Your task to perform on an android device: turn on translation in the chrome app Image 0: 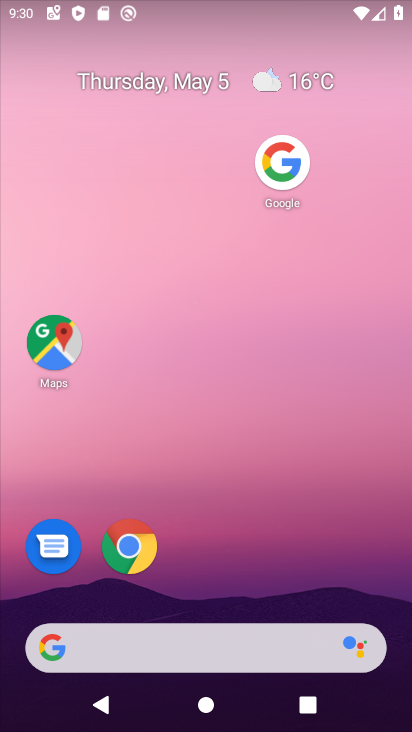
Step 0: drag from (205, 581) to (279, 34)
Your task to perform on an android device: turn on translation in the chrome app Image 1: 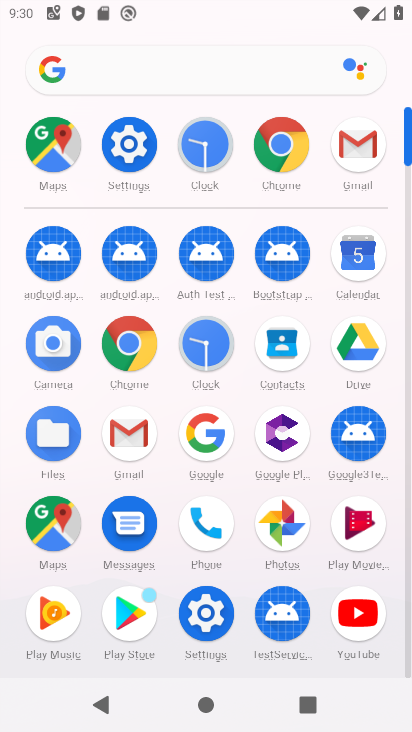
Step 1: click (289, 155)
Your task to perform on an android device: turn on translation in the chrome app Image 2: 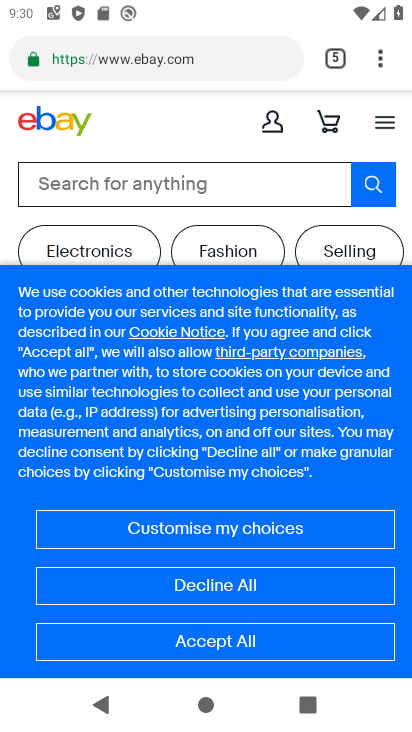
Step 2: drag from (377, 66) to (201, 568)
Your task to perform on an android device: turn on translation in the chrome app Image 3: 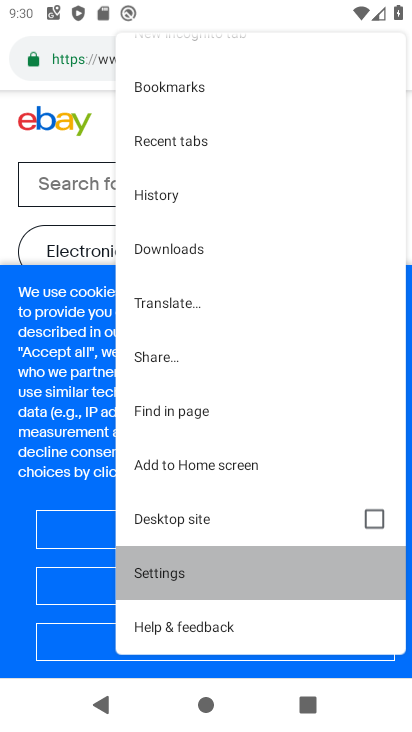
Step 3: click (201, 568)
Your task to perform on an android device: turn on translation in the chrome app Image 4: 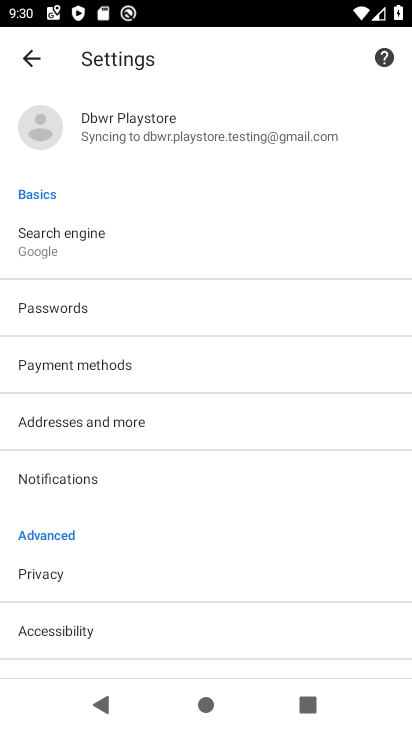
Step 4: drag from (163, 629) to (309, 133)
Your task to perform on an android device: turn on translation in the chrome app Image 5: 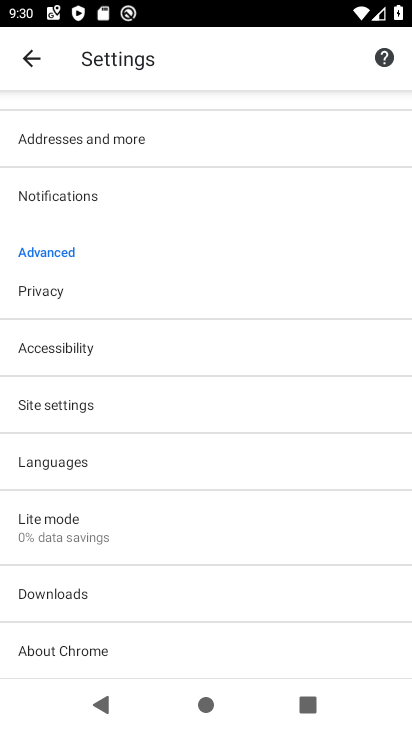
Step 5: click (102, 468)
Your task to perform on an android device: turn on translation in the chrome app Image 6: 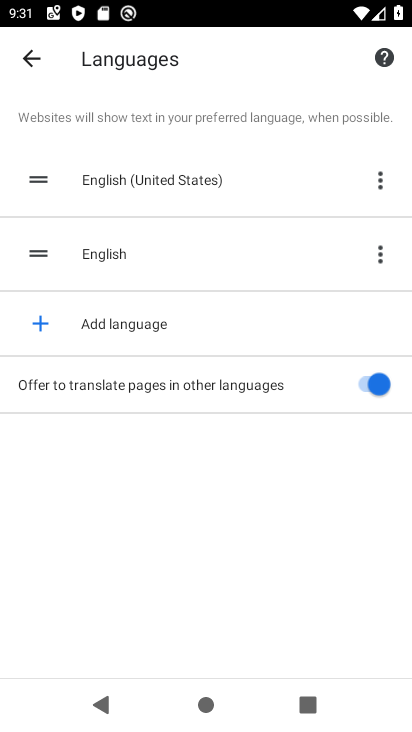
Step 6: task complete